Your task to perform on an android device: turn off data saver in the chrome app Image 0: 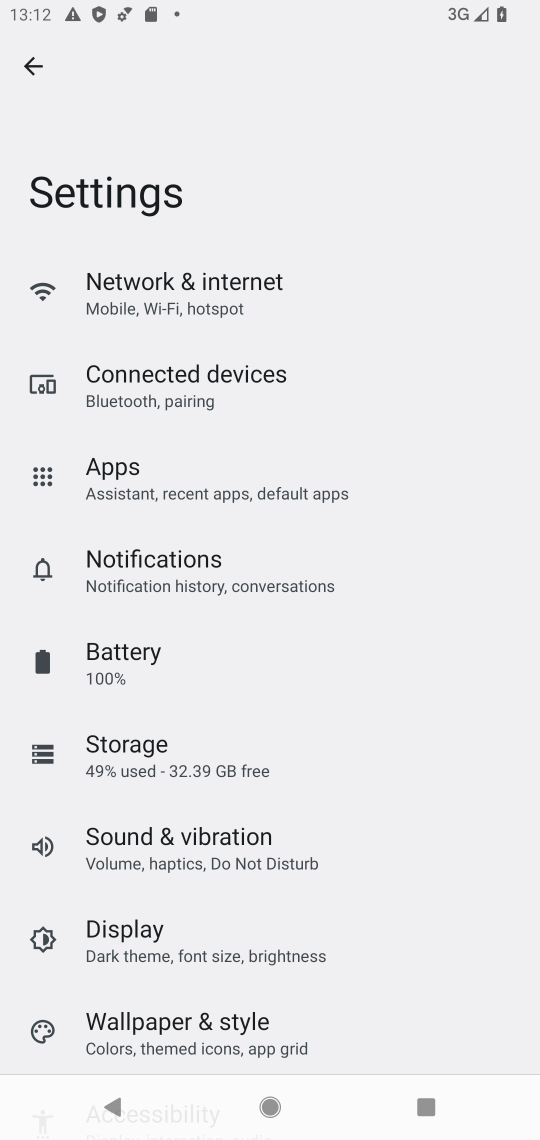
Step 0: drag from (265, 1005) to (333, 539)
Your task to perform on an android device: turn off data saver in the chrome app Image 1: 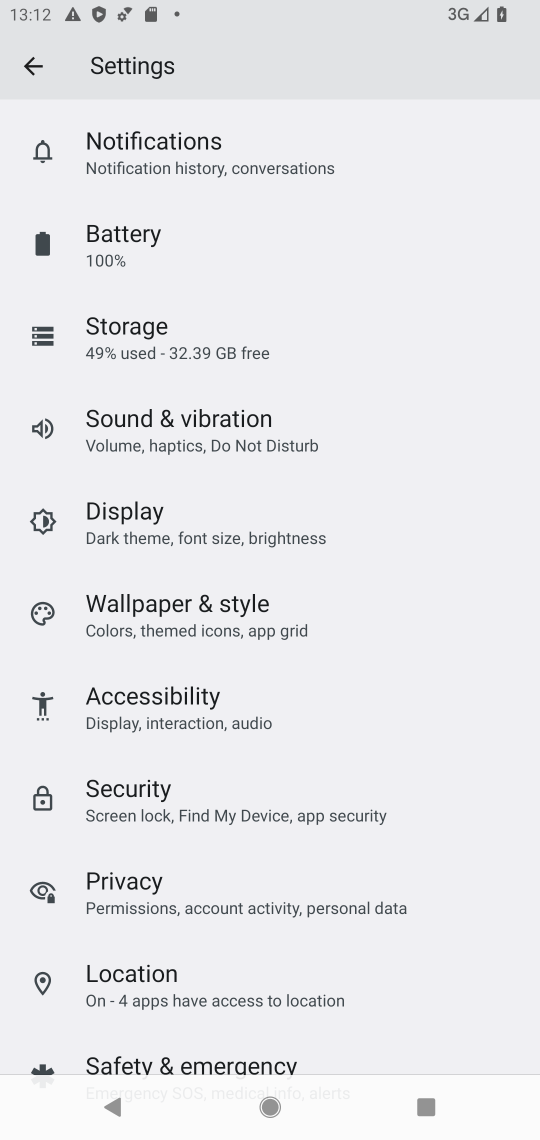
Step 1: drag from (242, 889) to (331, 488)
Your task to perform on an android device: turn off data saver in the chrome app Image 2: 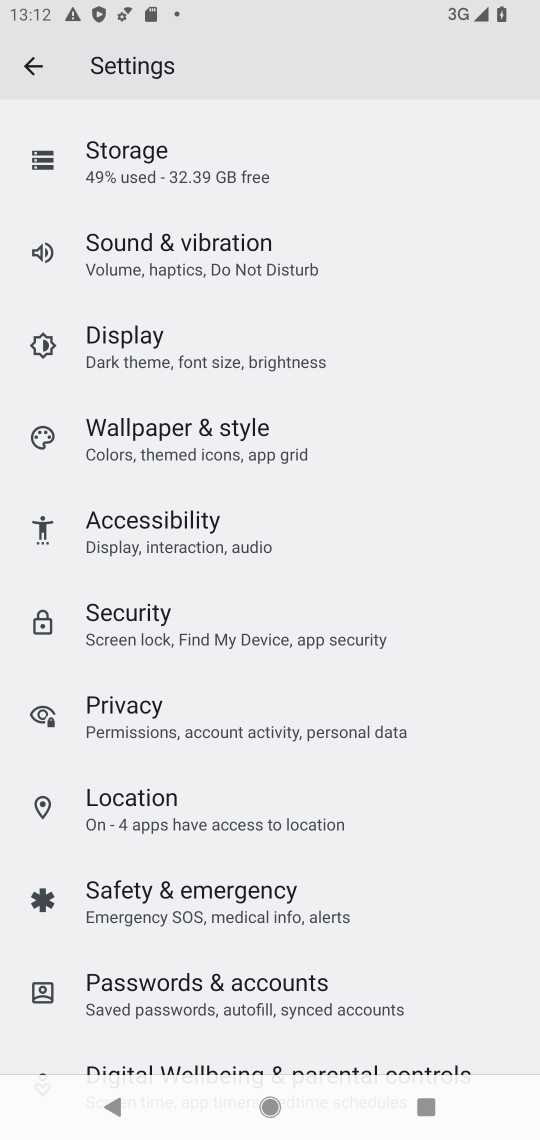
Step 2: press home button
Your task to perform on an android device: turn off data saver in the chrome app Image 3: 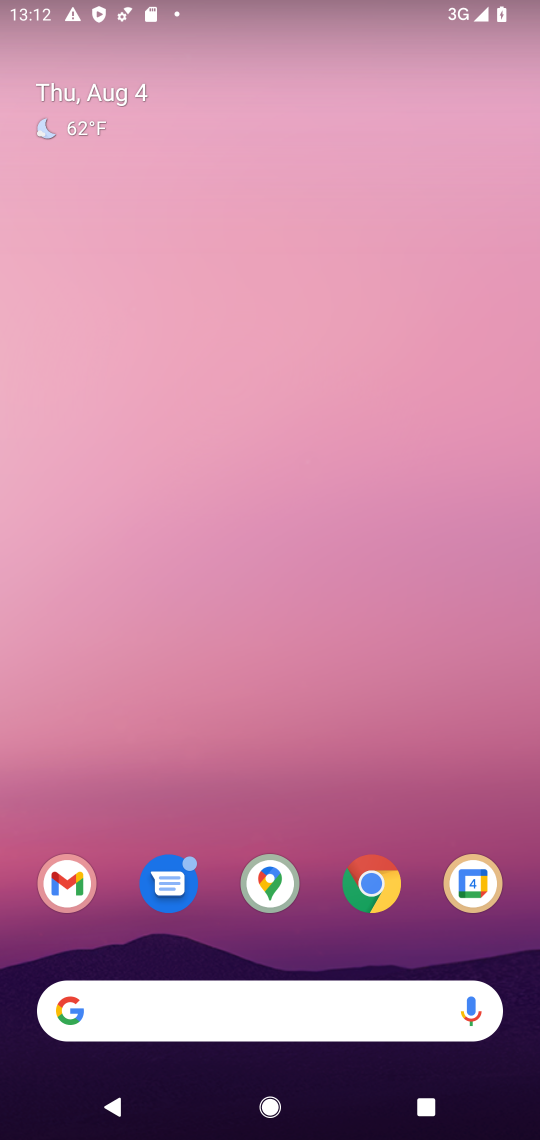
Step 3: drag from (239, 986) to (303, 339)
Your task to perform on an android device: turn off data saver in the chrome app Image 4: 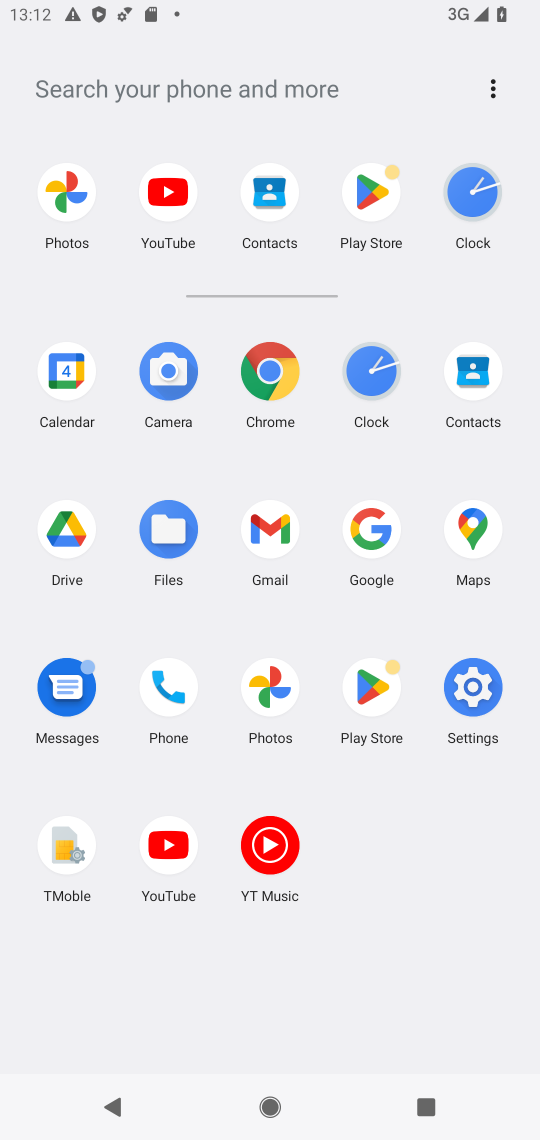
Step 4: click (274, 371)
Your task to perform on an android device: turn off data saver in the chrome app Image 5: 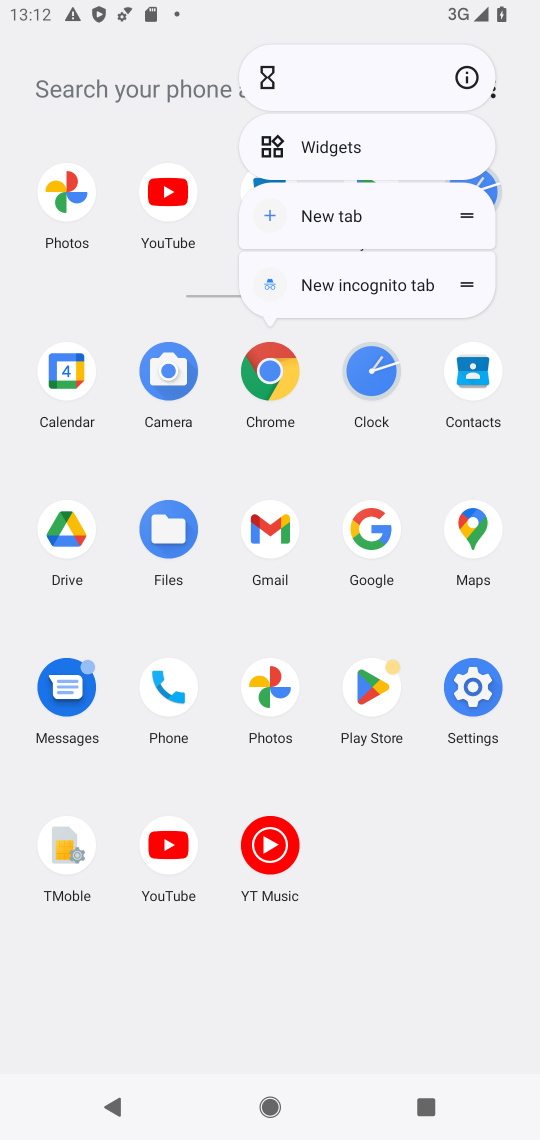
Step 5: click (460, 75)
Your task to perform on an android device: turn off data saver in the chrome app Image 6: 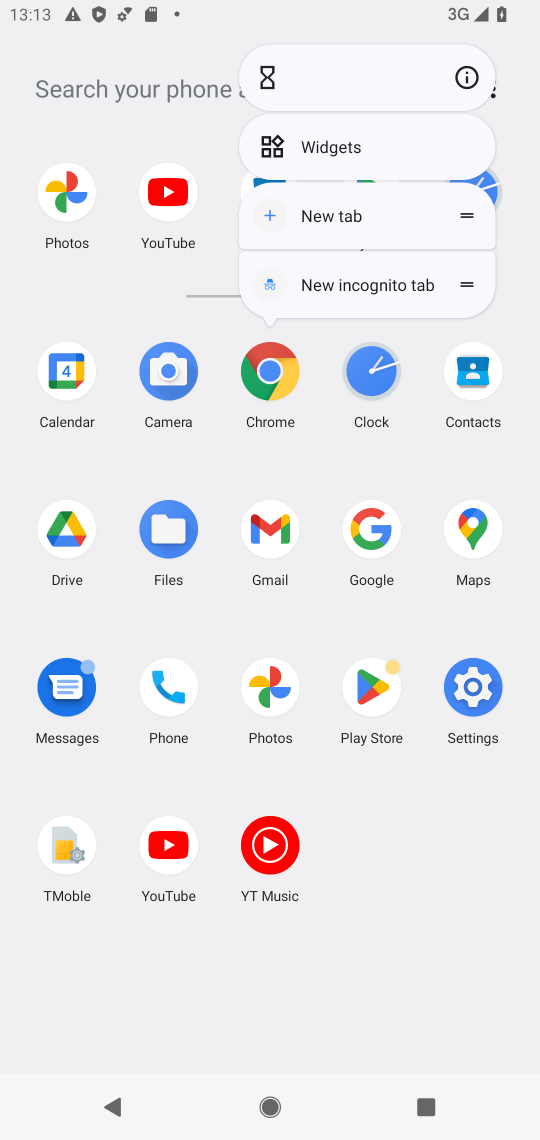
Step 6: click (458, 83)
Your task to perform on an android device: turn off data saver in the chrome app Image 7: 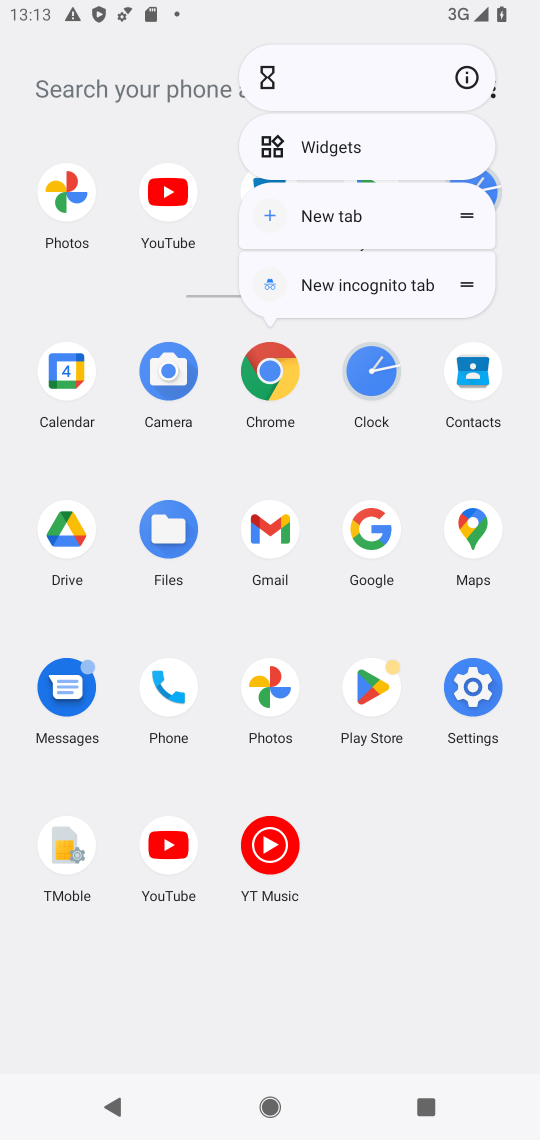
Step 7: click (463, 71)
Your task to perform on an android device: turn off data saver in the chrome app Image 8: 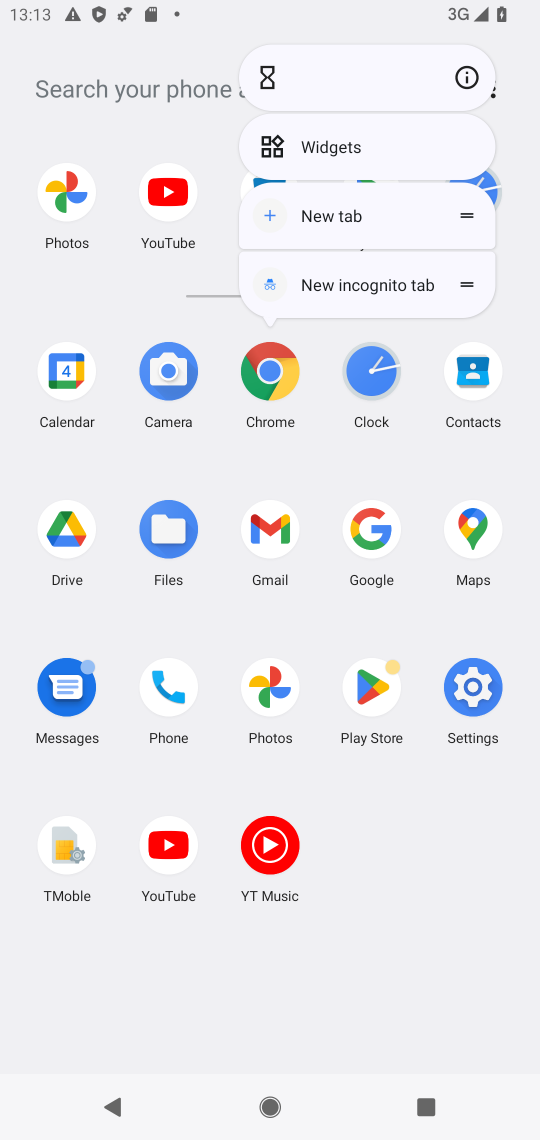
Step 8: click (441, 64)
Your task to perform on an android device: turn off data saver in the chrome app Image 9: 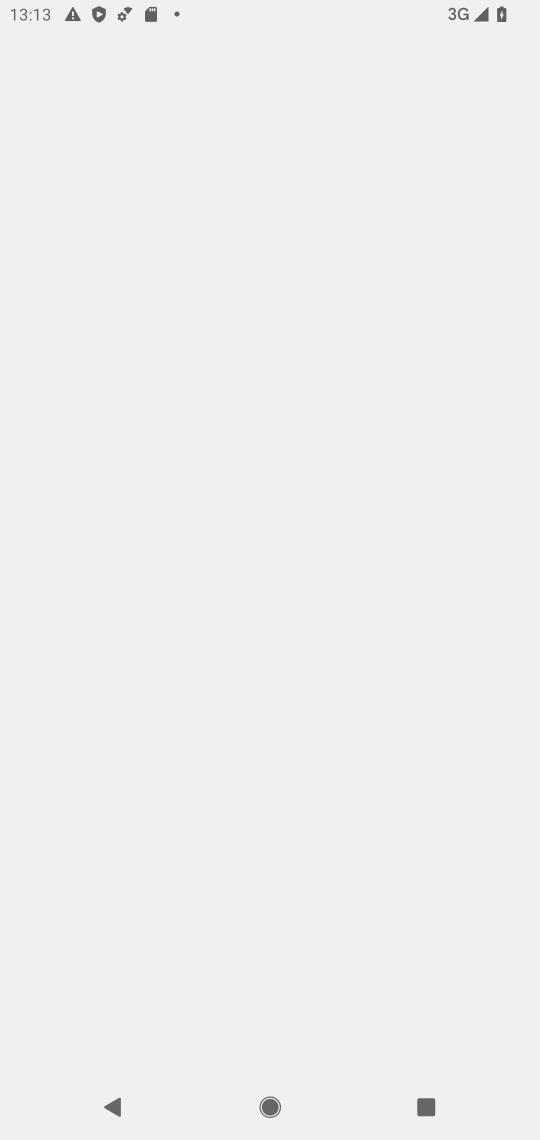
Step 9: click (467, 69)
Your task to perform on an android device: turn off data saver in the chrome app Image 10: 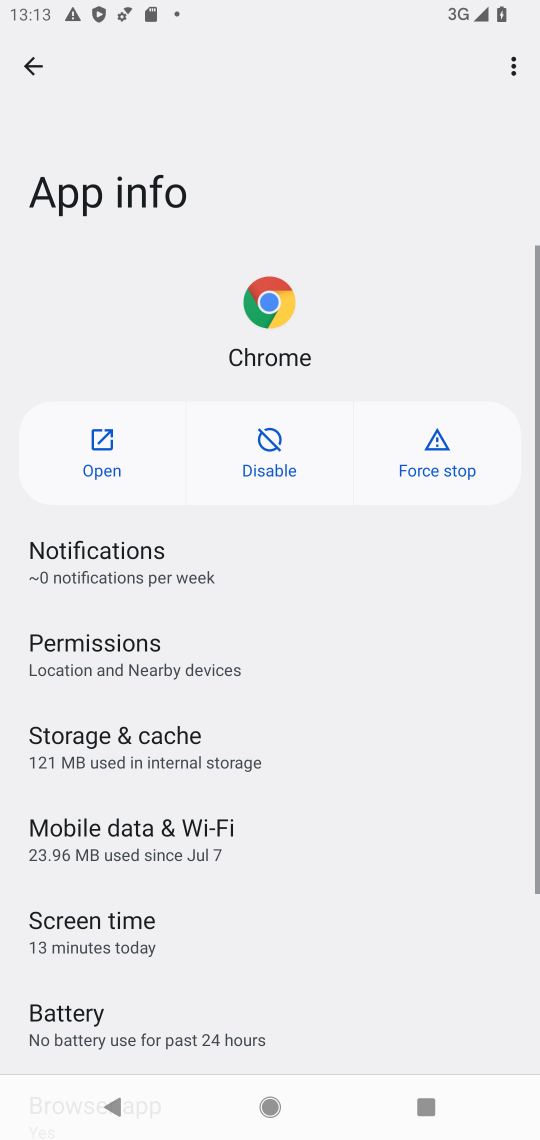
Step 10: click (94, 468)
Your task to perform on an android device: turn off data saver in the chrome app Image 11: 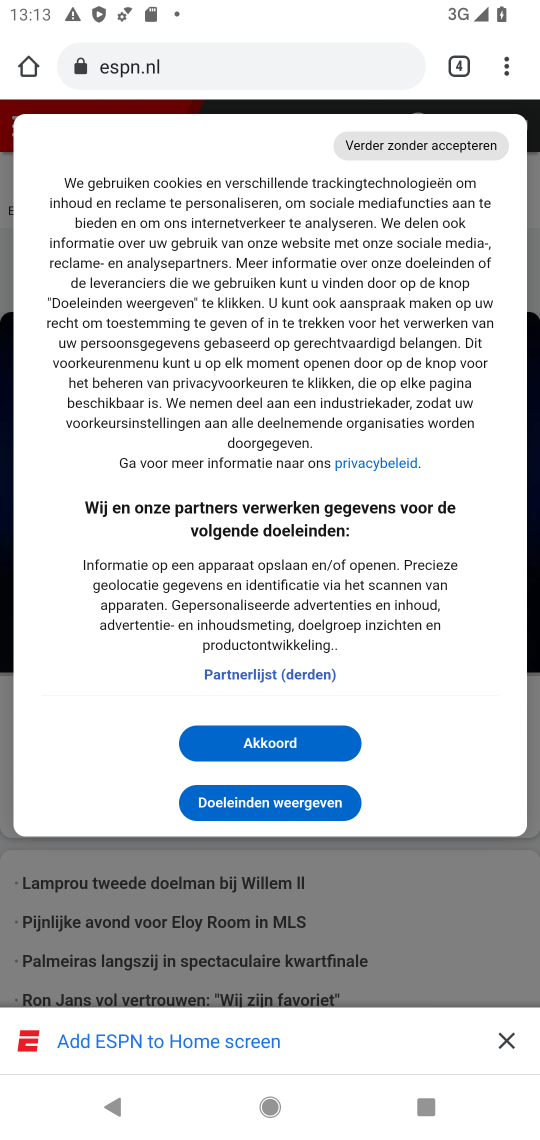
Step 11: drag from (506, 65) to (358, 872)
Your task to perform on an android device: turn off data saver in the chrome app Image 12: 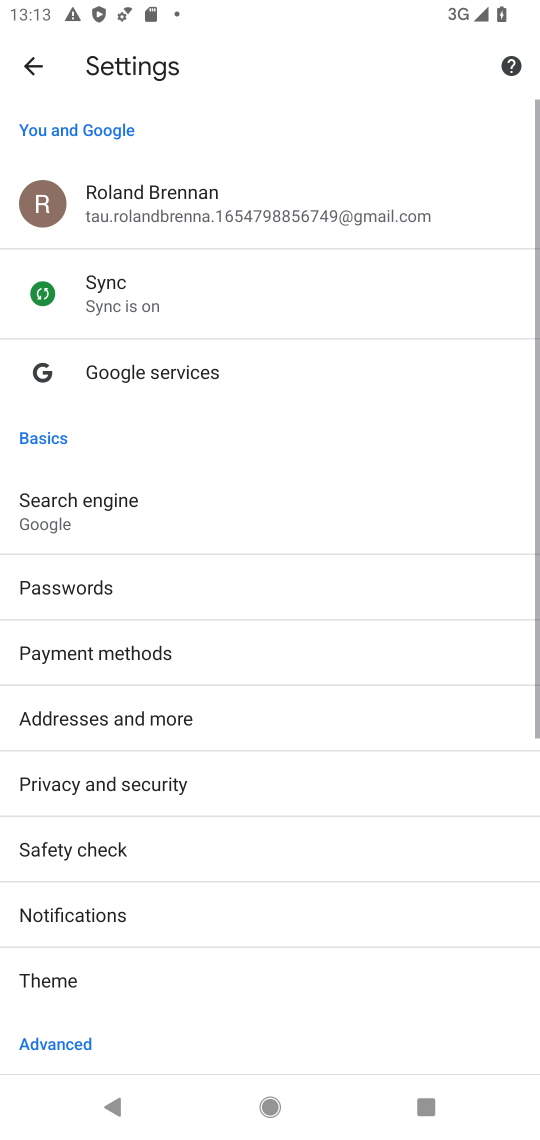
Step 12: drag from (231, 895) to (342, 198)
Your task to perform on an android device: turn off data saver in the chrome app Image 13: 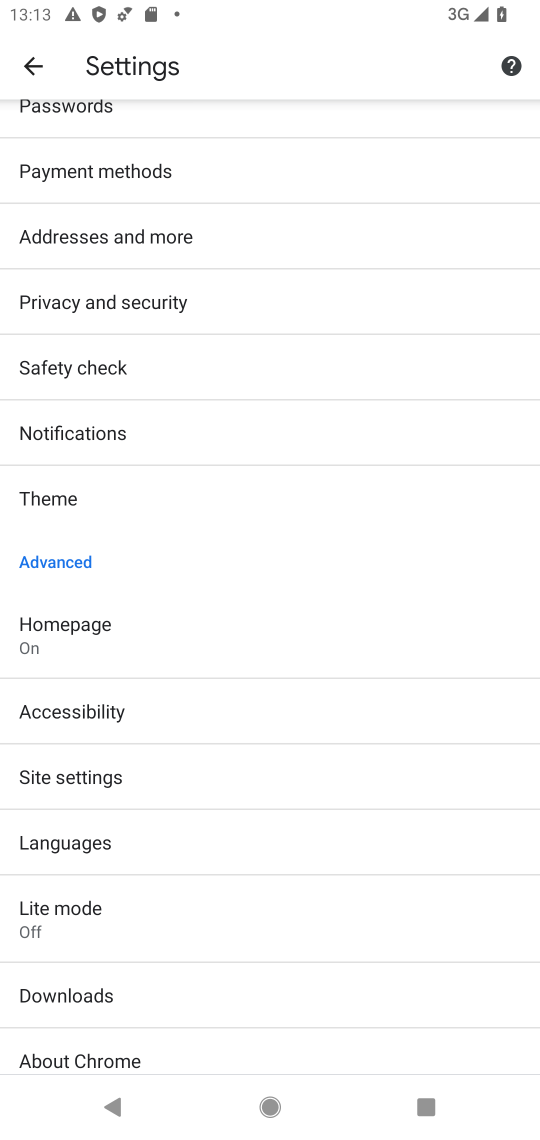
Step 13: click (107, 923)
Your task to perform on an android device: turn off data saver in the chrome app Image 14: 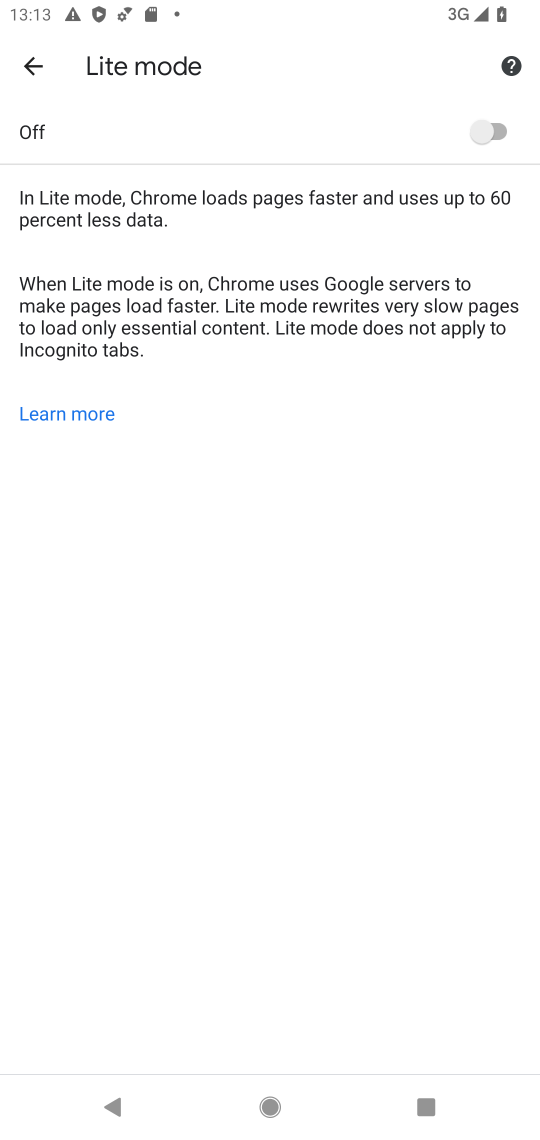
Step 14: task complete